Your task to perform on an android device: toggle translation in the chrome app Image 0: 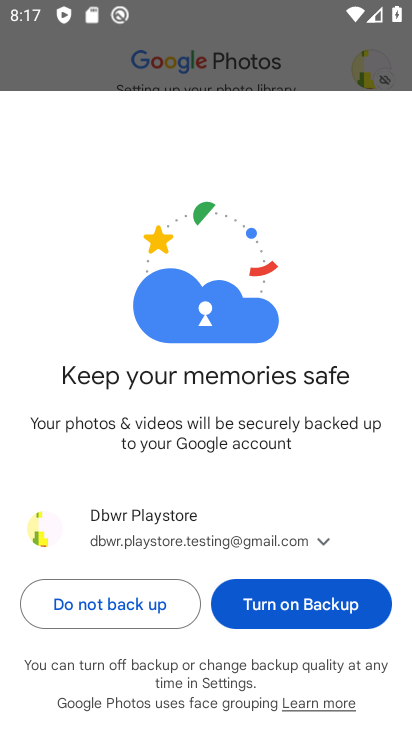
Step 0: press home button
Your task to perform on an android device: toggle translation in the chrome app Image 1: 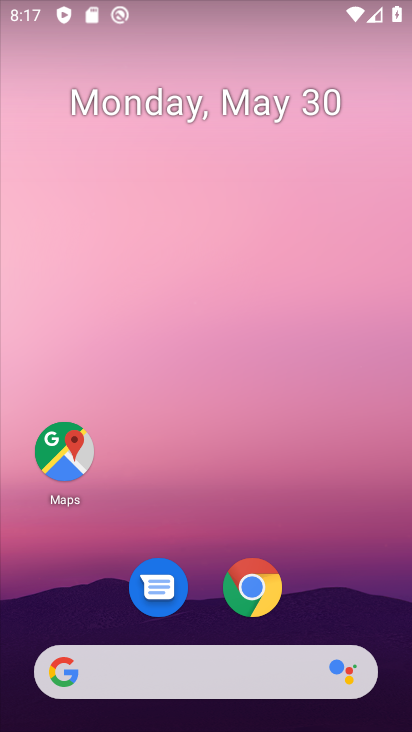
Step 1: click (245, 593)
Your task to perform on an android device: toggle translation in the chrome app Image 2: 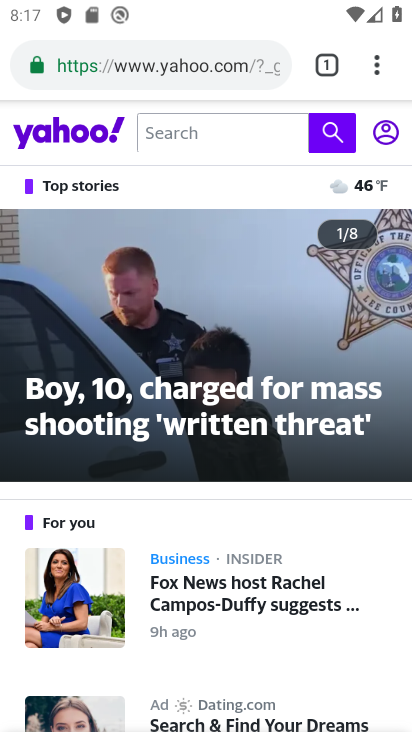
Step 2: click (371, 63)
Your task to perform on an android device: toggle translation in the chrome app Image 3: 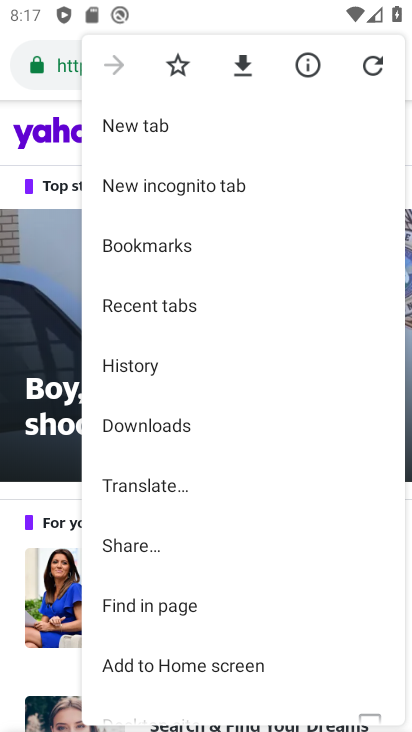
Step 3: drag from (164, 629) to (227, 309)
Your task to perform on an android device: toggle translation in the chrome app Image 4: 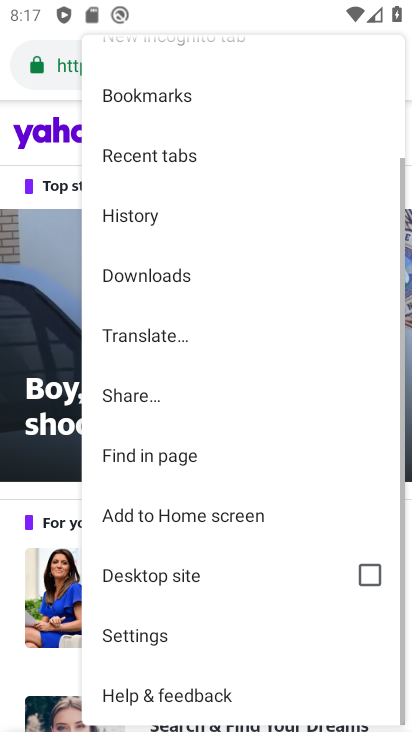
Step 4: click (163, 641)
Your task to perform on an android device: toggle translation in the chrome app Image 5: 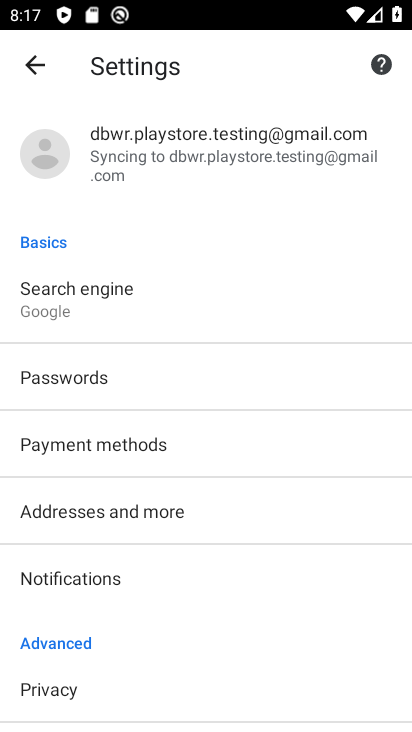
Step 5: drag from (162, 625) to (181, 252)
Your task to perform on an android device: toggle translation in the chrome app Image 6: 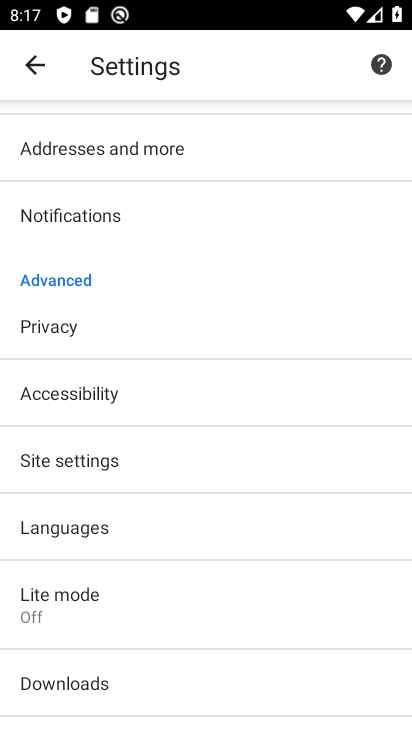
Step 6: click (123, 519)
Your task to perform on an android device: toggle translation in the chrome app Image 7: 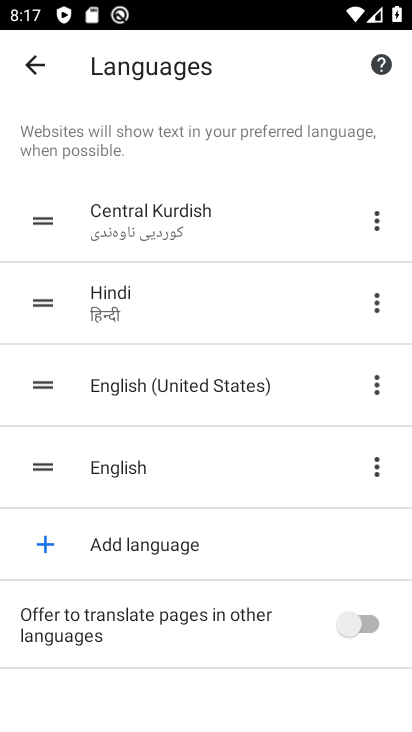
Step 7: click (350, 637)
Your task to perform on an android device: toggle translation in the chrome app Image 8: 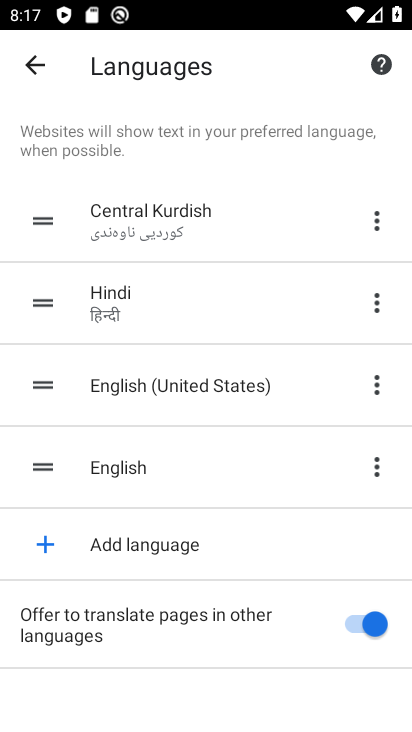
Step 8: task complete